Your task to perform on an android device: Open sound settings Image 0: 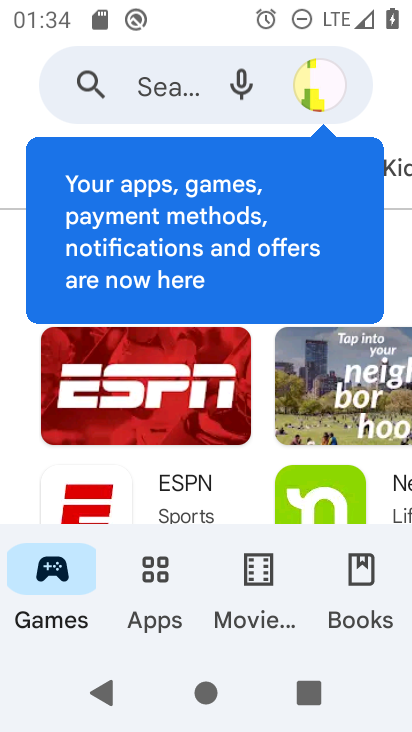
Step 0: press home button
Your task to perform on an android device: Open sound settings Image 1: 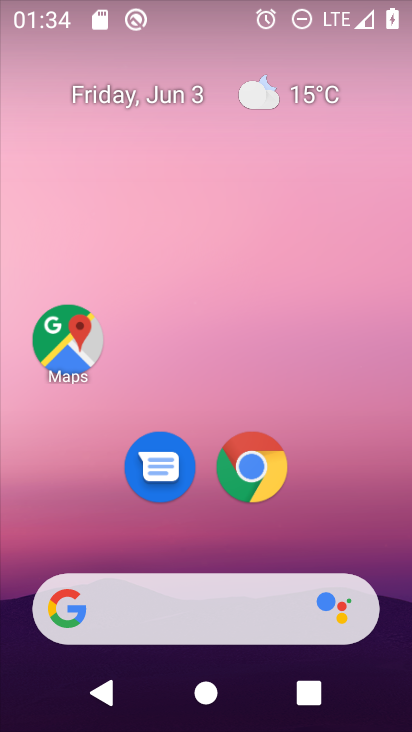
Step 1: drag from (394, 605) to (301, 132)
Your task to perform on an android device: Open sound settings Image 2: 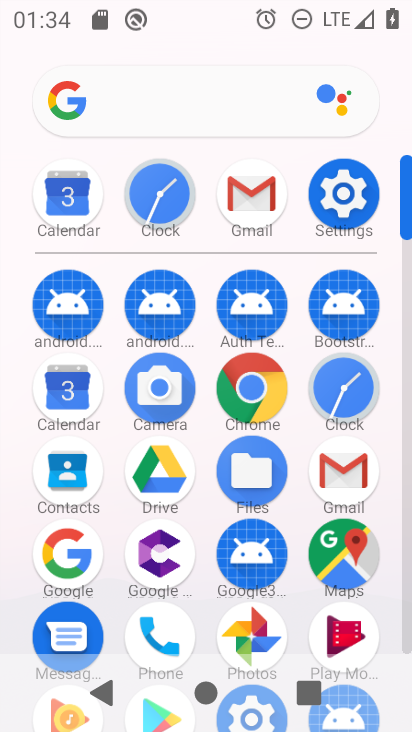
Step 2: click (409, 642)
Your task to perform on an android device: Open sound settings Image 3: 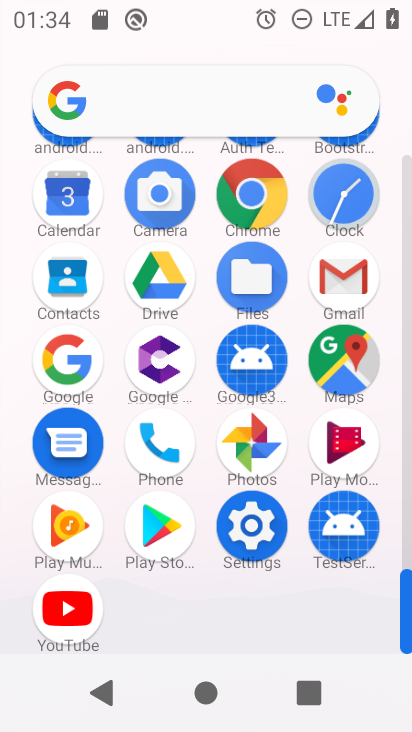
Step 3: click (251, 530)
Your task to perform on an android device: Open sound settings Image 4: 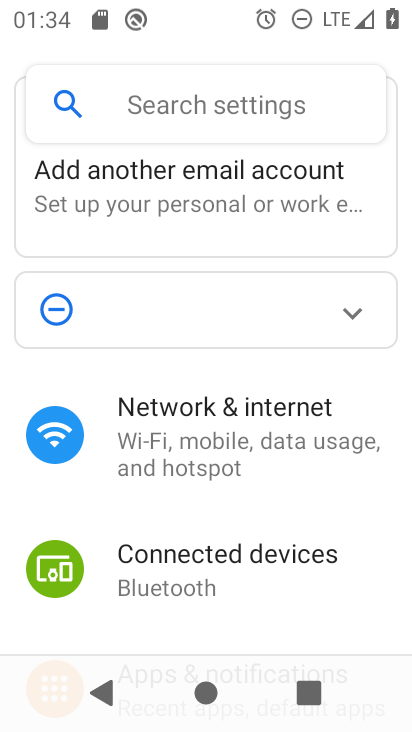
Step 4: drag from (255, 535) to (294, 120)
Your task to perform on an android device: Open sound settings Image 5: 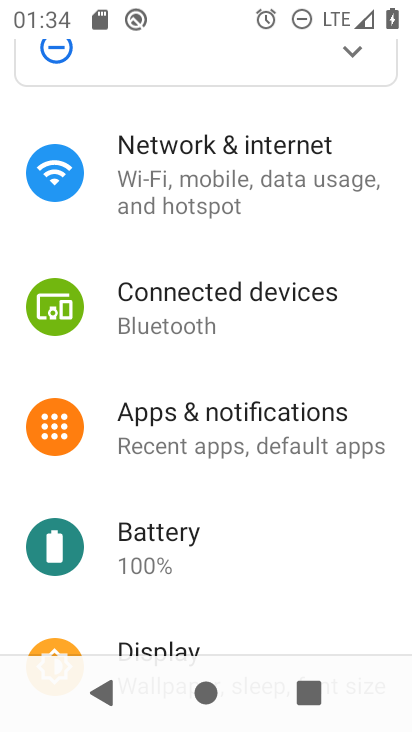
Step 5: drag from (305, 482) to (325, 174)
Your task to perform on an android device: Open sound settings Image 6: 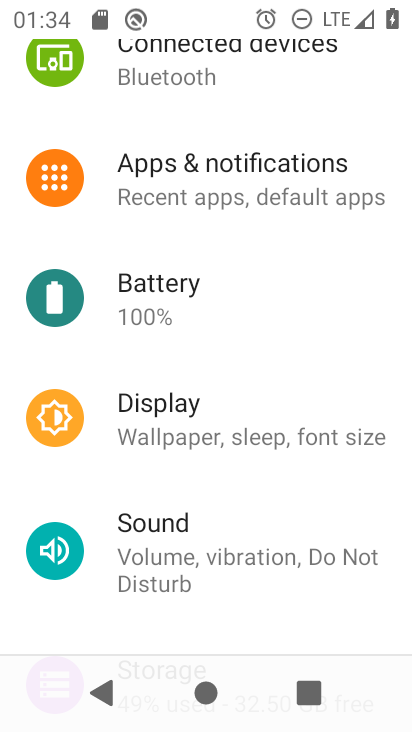
Step 6: drag from (317, 522) to (311, 294)
Your task to perform on an android device: Open sound settings Image 7: 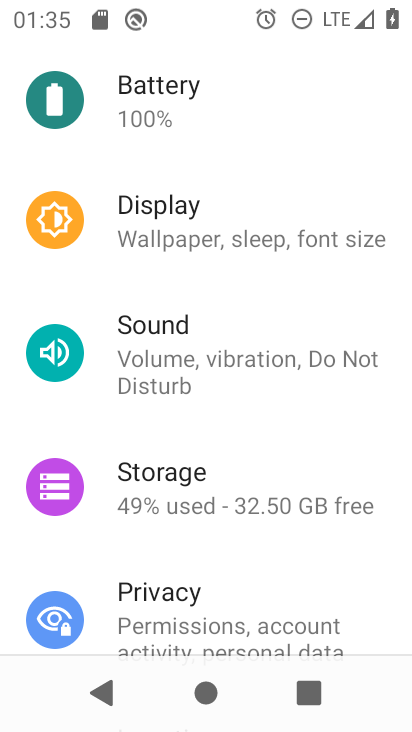
Step 7: click (163, 360)
Your task to perform on an android device: Open sound settings Image 8: 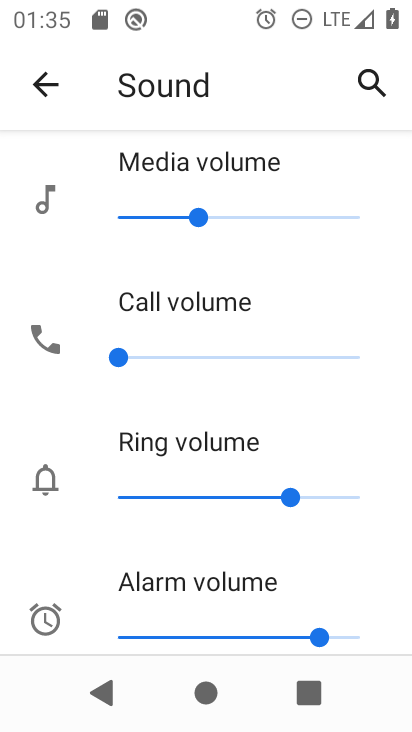
Step 8: drag from (348, 582) to (330, 161)
Your task to perform on an android device: Open sound settings Image 9: 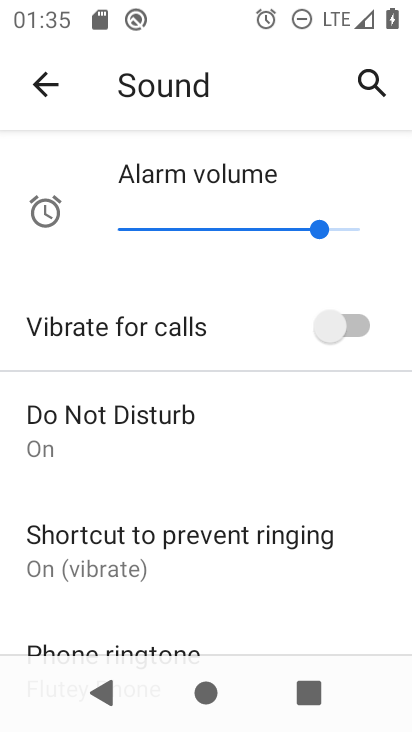
Step 9: drag from (360, 525) to (348, 199)
Your task to perform on an android device: Open sound settings Image 10: 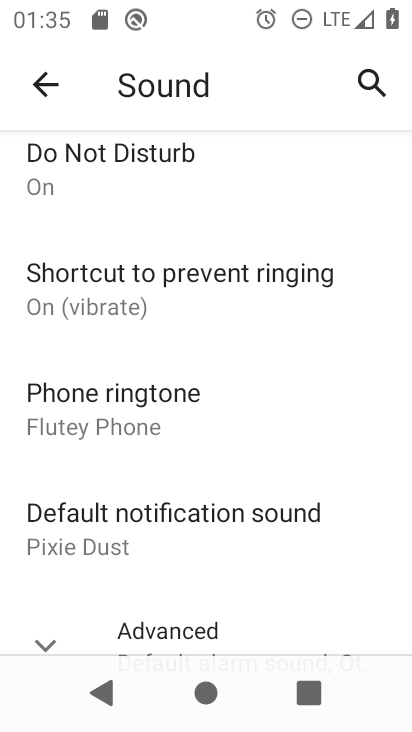
Step 10: drag from (322, 576) to (338, 130)
Your task to perform on an android device: Open sound settings Image 11: 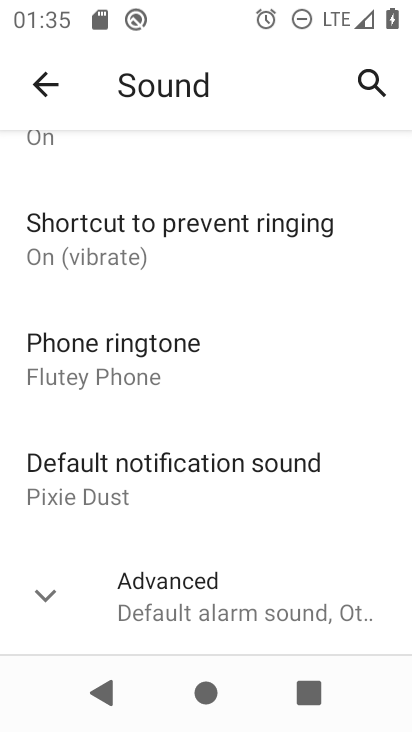
Step 11: click (44, 587)
Your task to perform on an android device: Open sound settings Image 12: 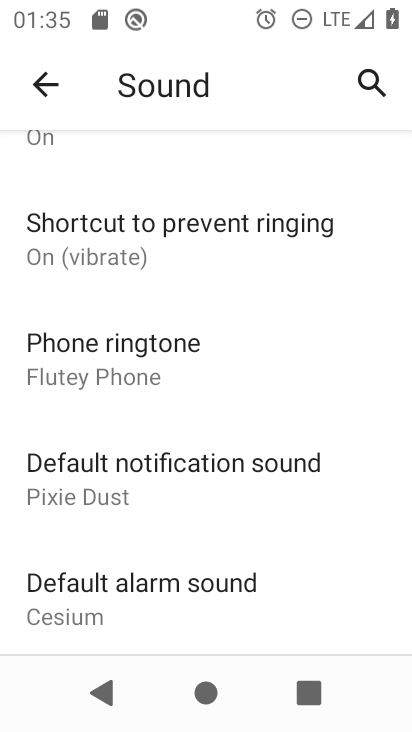
Step 12: task complete